Your task to perform on an android device: turn off location history Image 0: 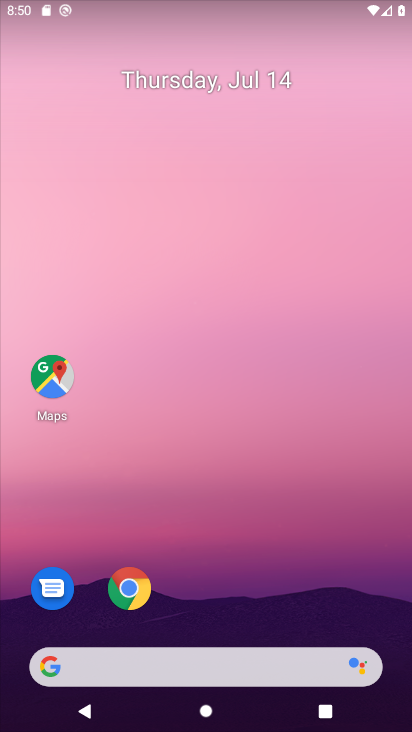
Step 0: drag from (201, 612) to (266, 130)
Your task to perform on an android device: turn off location history Image 1: 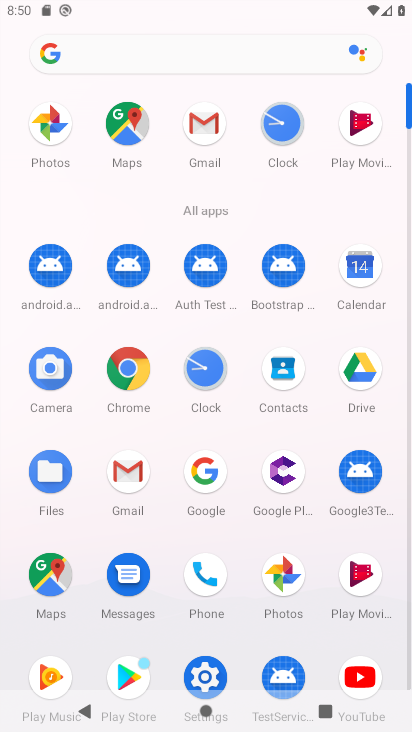
Step 1: click (50, 572)
Your task to perform on an android device: turn off location history Image 2: 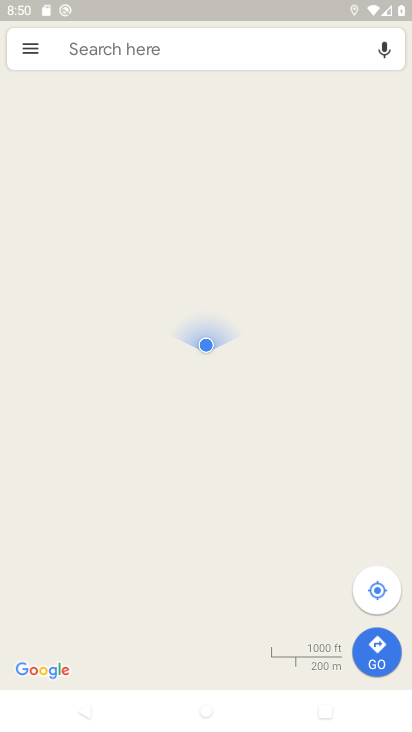
Step 2: click (24, 47)
Your task to perform on an android device: turn off location history Image 3: 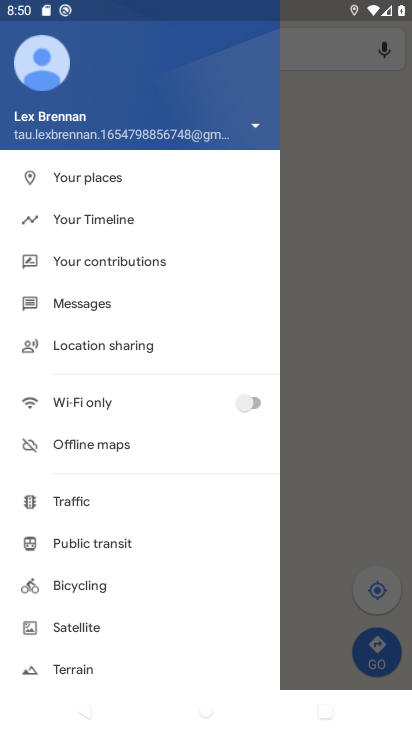
Step 3: click (88, 219)
Your task to perform on an android device: turn off location history Image 4: 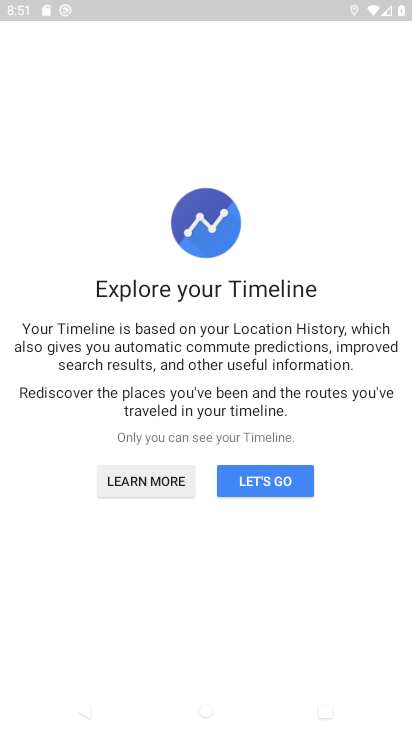
Step 4: click (284, 479)
Your task to perform on an android device: turn off location history Image 5: 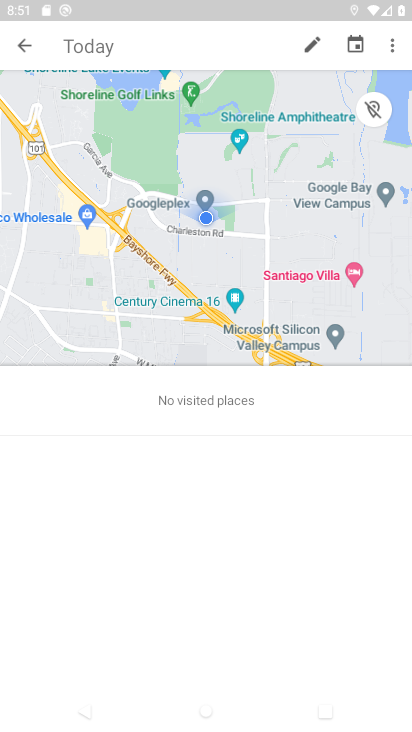
Step 5: click (387, 45)
Your task to perform on an android device: turn off location history Image 6: 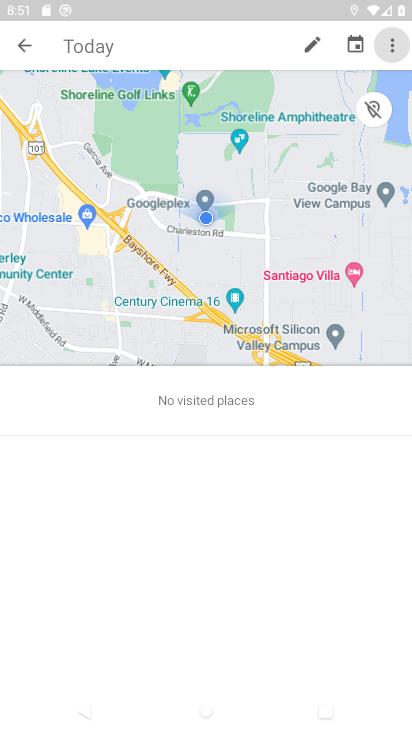
Step 6: click (387, 45)
Your task to perform on an android device: turn off location history Image 7: 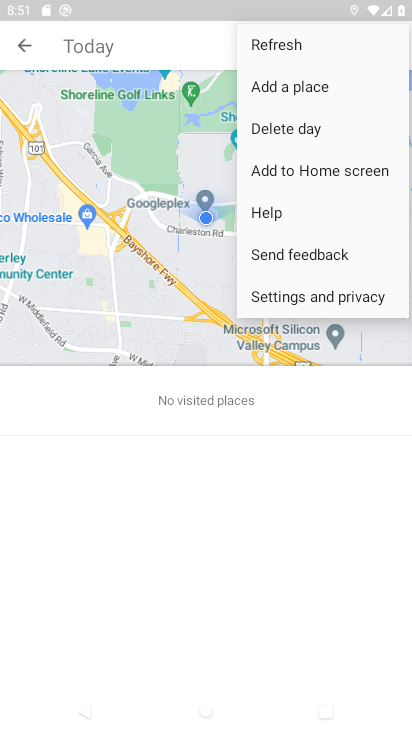
Step 7: click (286, 298)
Your task to perform on an android device: turn off location history Image 8: 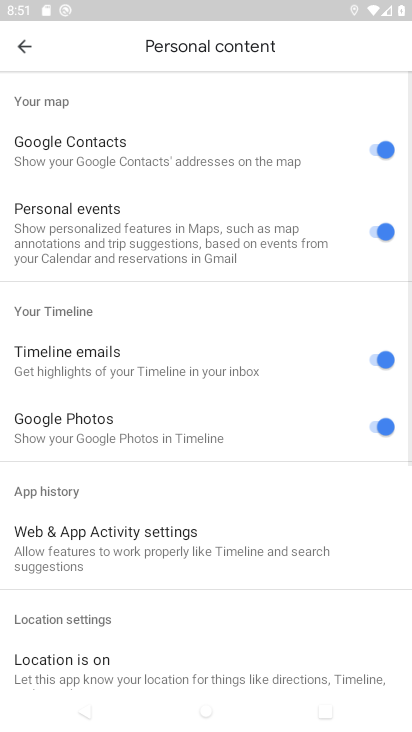
Step 8: drag from (163, 602) to (159, 233)
Your task to perform on an android device: turn off location history Image 9: 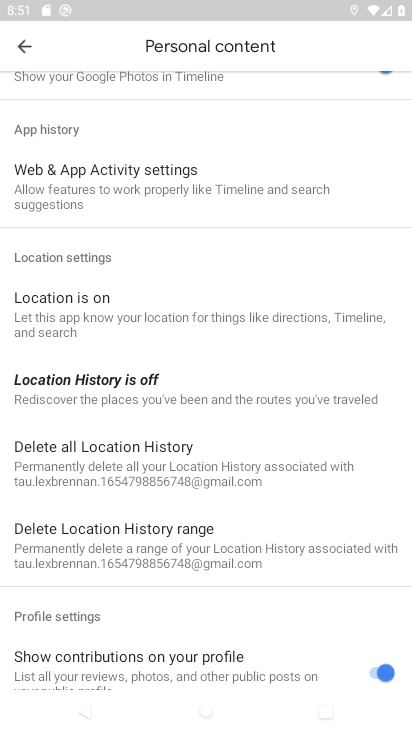
Step 9: click (41, 387)
Your task to perform on an android device: turn off location history Image 10: 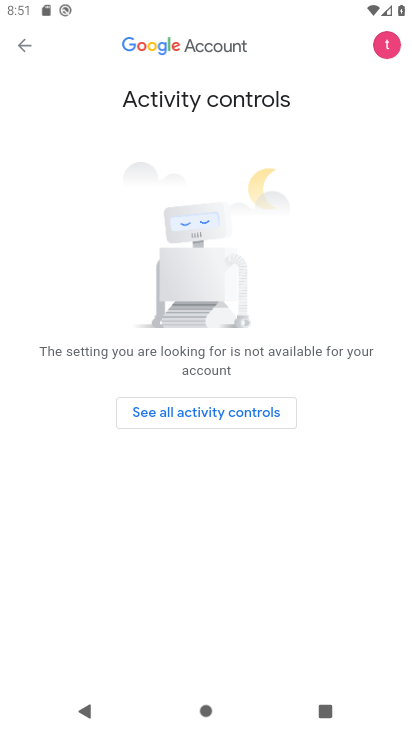
Step 10: task complete